Your task to perform on an android device: check out phone information Image 0: 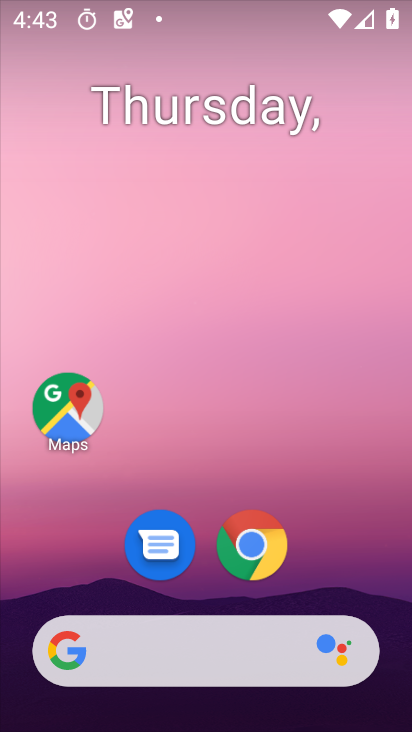
Step 0: drag from (213, 723) to (219, 12)
Your task to perform on an android device: check out phone information Image 1: 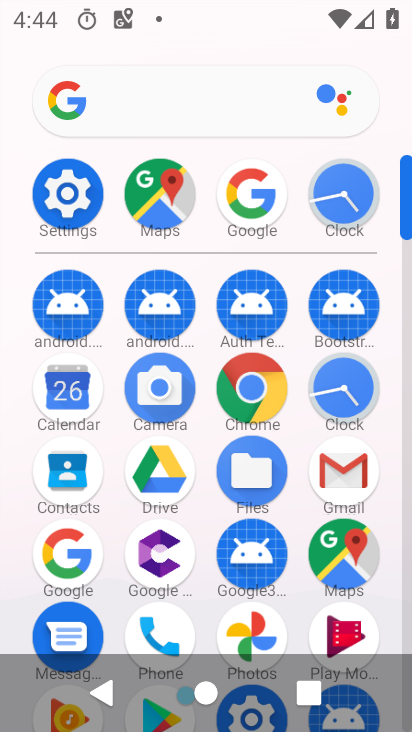
Step 1: click (51, 197)
Your task to perform on an android device: check out phone information Image 2: 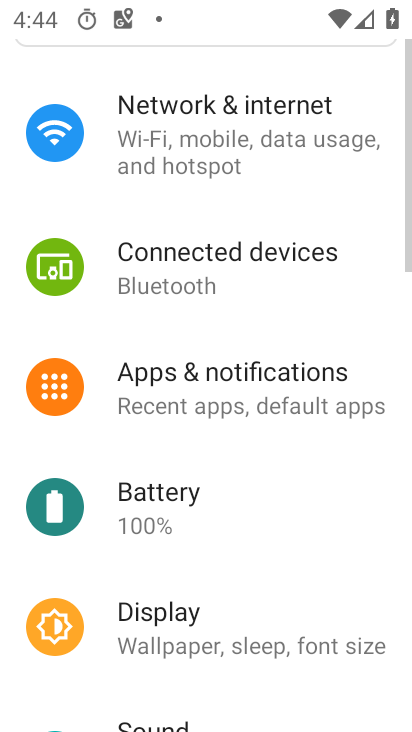
Step 2: drag from (210, 702) to (216, 174)
Your task to perform on an android device: check out phone information Image 3: 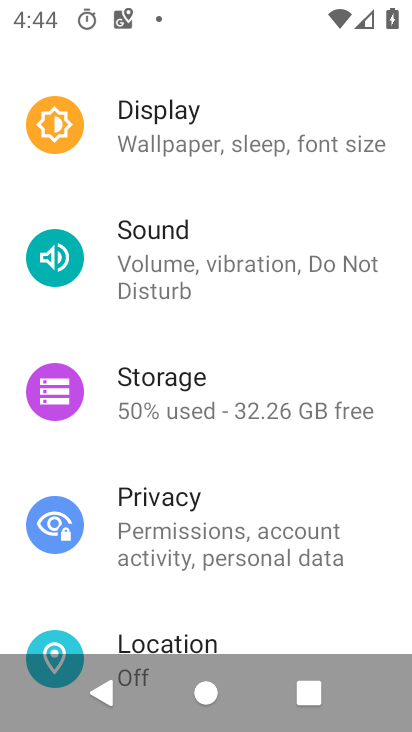
Step 3: drag from (235, 627) to (242, 172)
Your task to perform on an android device: check out phone information Image 4: 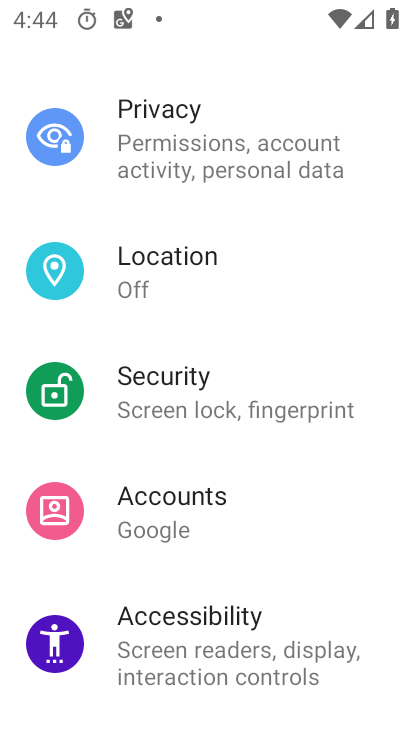
Step 4: drag from (208, 648) to (214, 171)
Your task to perform on an android device: check out phone information Image 5: 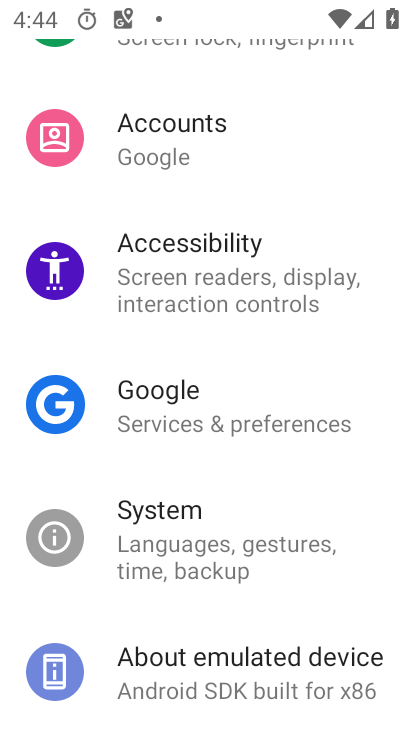
Step 5: drag from (186, 690) to (198, 154)
Your task to perform on an android device: check out phone information Image 6: 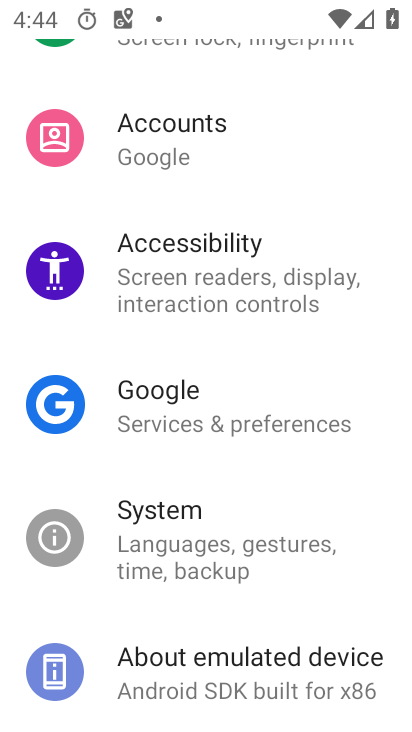
Step 6: click (229, 669)
Your task to perform on an android device: check out phone information Image 7: 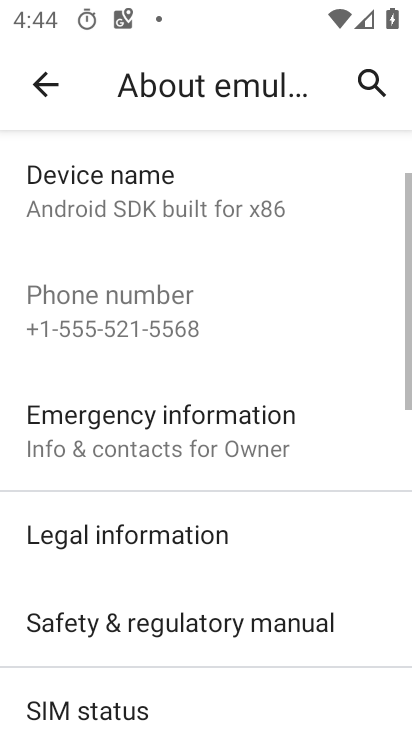
Step 7: task complete